Your task to perform on an android device: turn on data saver in the chrome app Image 0: 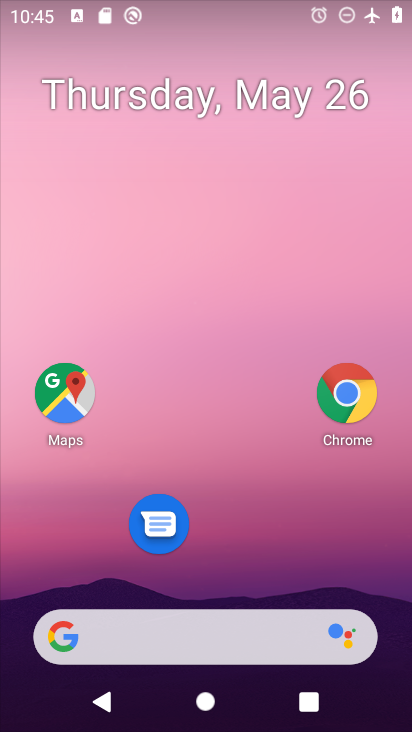
Step 0: click (358, 393)
Your task to perform on an android device: turn on data saver in the chrome app Image 1: 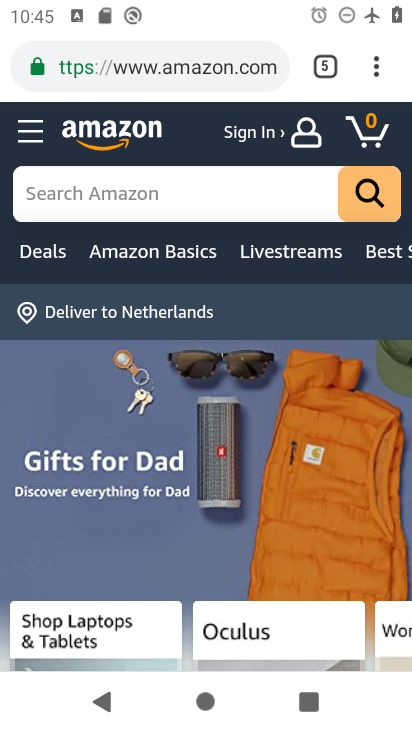
Step 1: click (375, 64)
Your task to perform on an android device: turn on data saver in the chrome app Image 2: 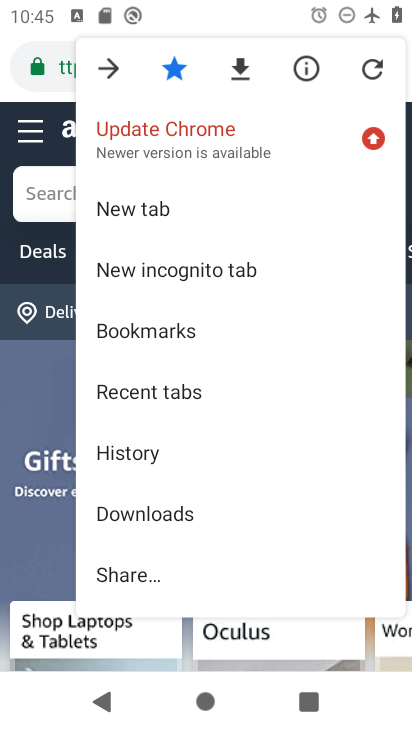
Step 2: drag from (259, 468) to (249, 116)
Your task to perform on an android device: turn on data saver in the chrome app Image 3: 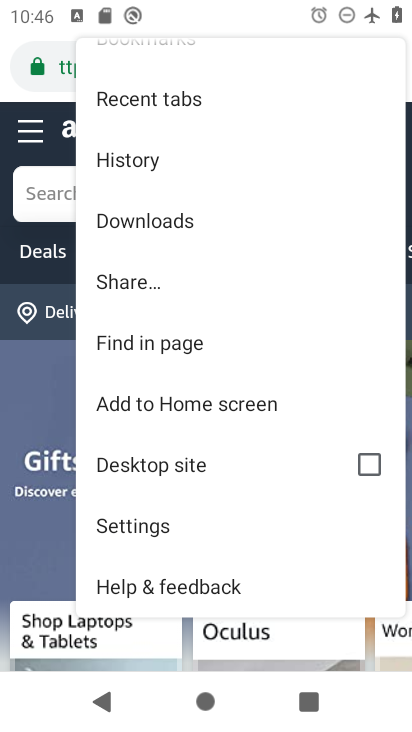
Step 3: click (168, 523)
Your task to perform on an android device: turn on data saver in the chrome app Image 4: 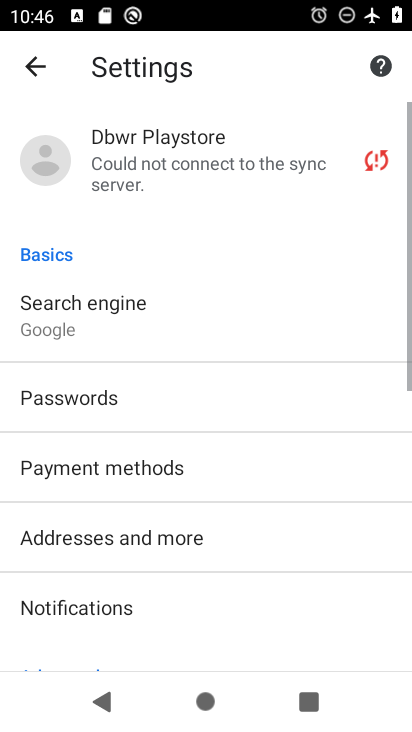
Step 4: drag from (237, 495) to (285, 78)
Your task to perform on an android device: turn on data saver in the chrome app Image 5: 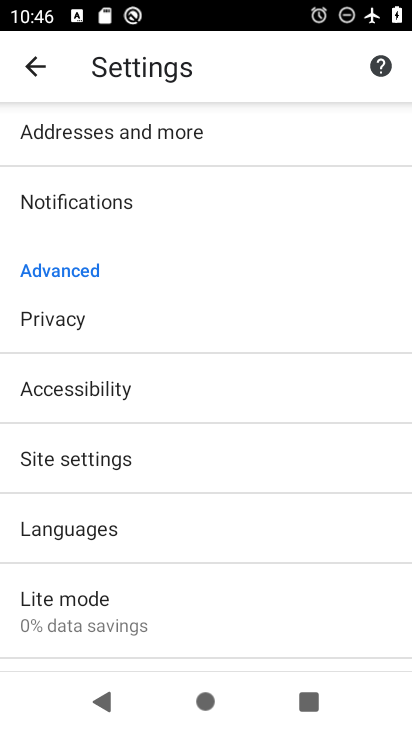
Step 5: click (129, 612)
Your task to perform on an android device: turn on data saver in the chrome app Image 6: 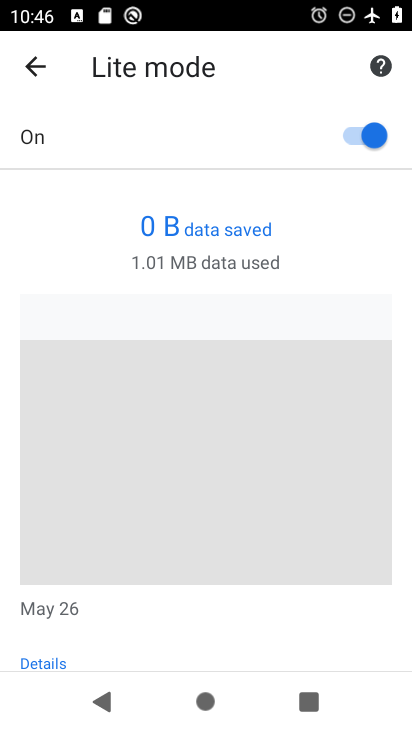
Step 6: task complete